Your task to perform on an android device: change the clock display to show seconds Image 0: 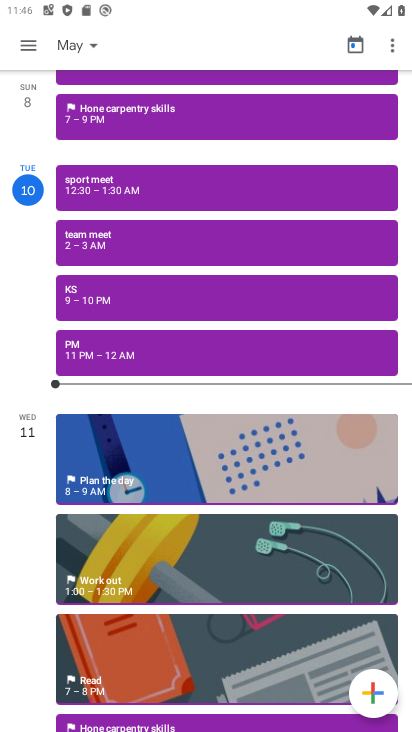
Step 0: press home button
Your task to perform on an android device: change the clock display to show seconds Image 1: 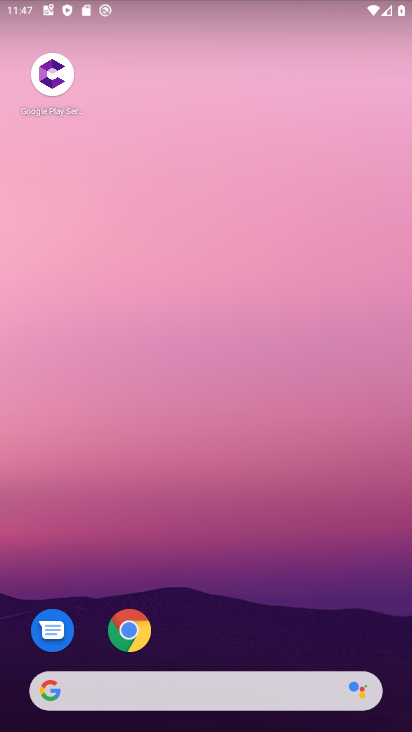
Step 1: drag from (333, 581) to (245, 62)
Your task to perform on an android device: change the clock display to show seconds Image 2: 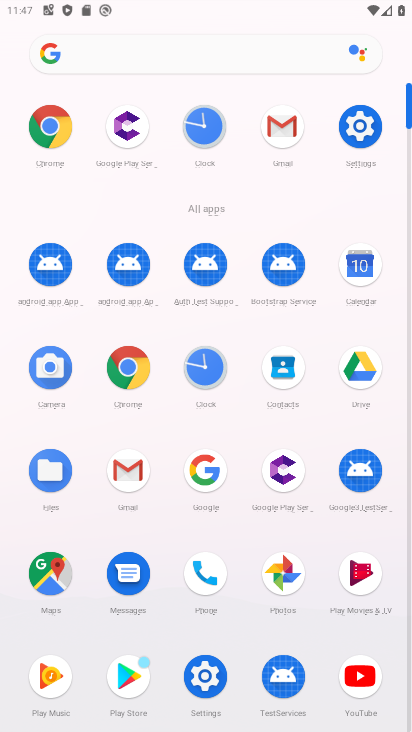
Step 2: click (197, 132)
Your task to perform on an android device: change the clock display to show seconds Image 3: 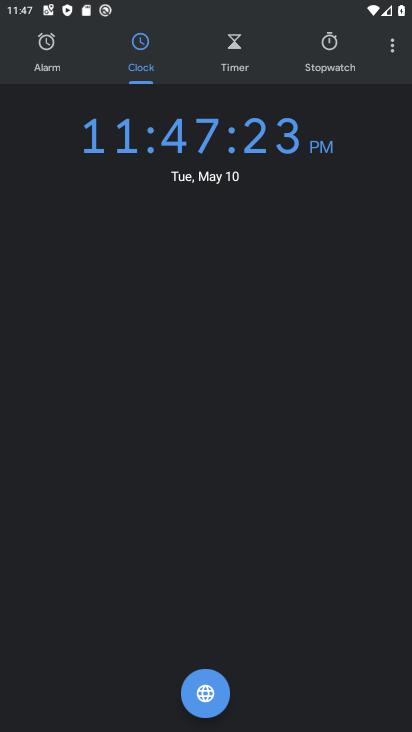
Step 3: click (388, 53)
Your task to perform on an android device: change the clock display to show seconds Image 4: 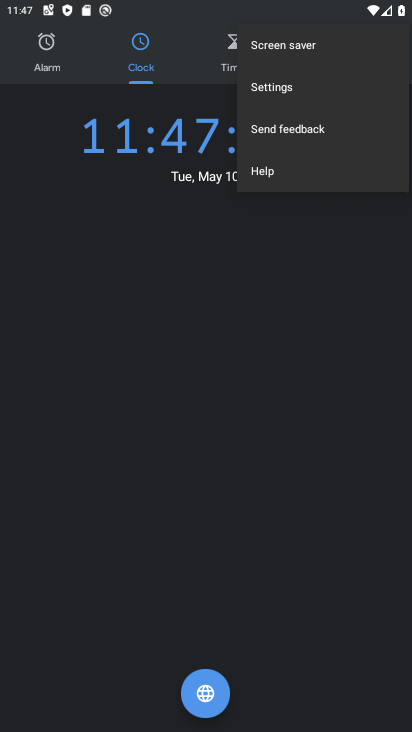
Step 4: click (303, 87)
Your task to perform on an android device: change the clock display to show seconds Image 5: 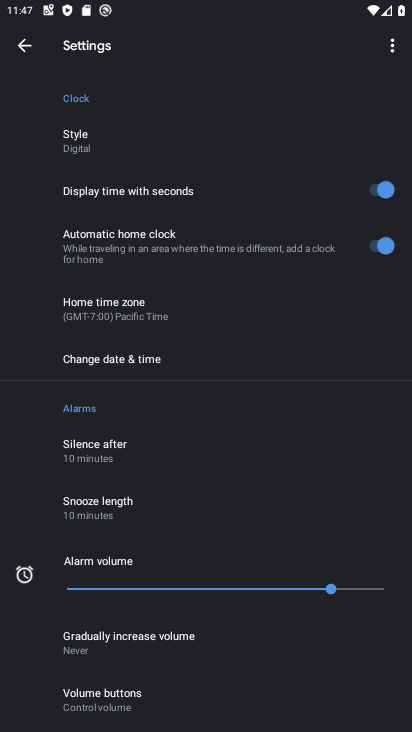
Step 5: task complete